Your task to perform on an android device: See recent photos Image 0: 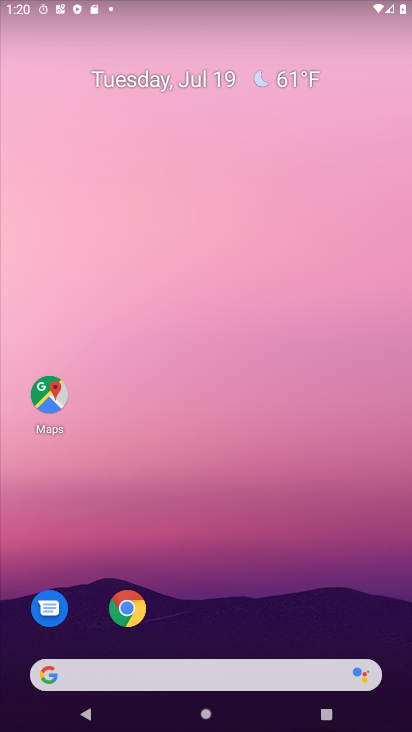
Step 0: drag from (285, 586) to (275, 138)
Your task to perform on an android device: See recent photos Image 1: 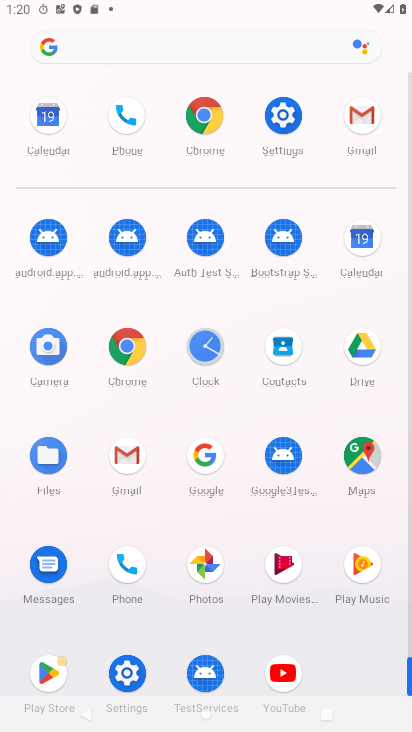
Step 1: click (201, 569)
Your task to perform on an android device: See recent photos Image 2: 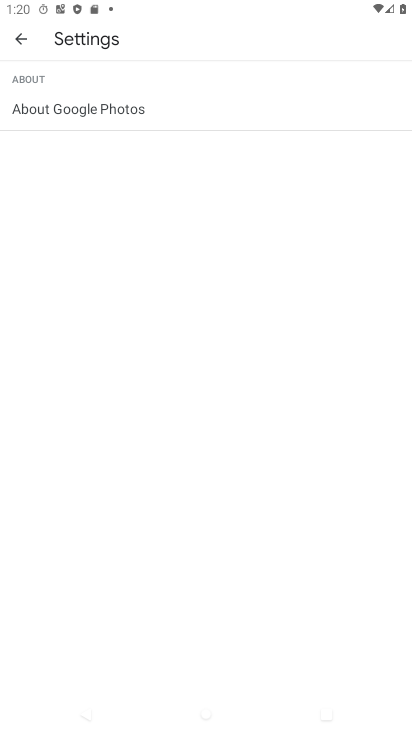
Step 2: click (23, 47)
Your task to perform on an android device: See recent photos Image 3: 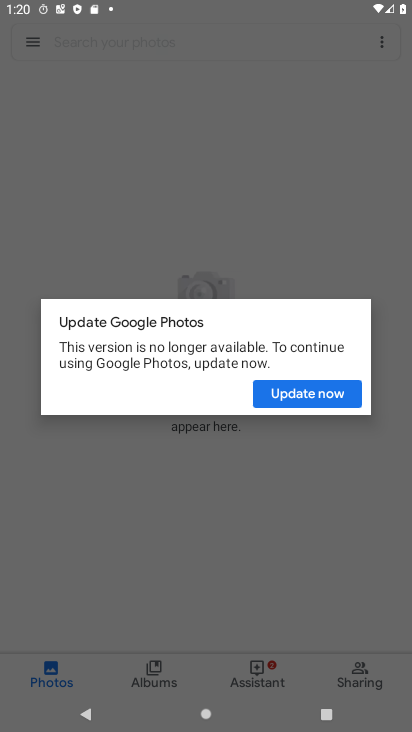
Step 3: click (324, 396)
Your task to perform on an android device: See recent photos Image 4: 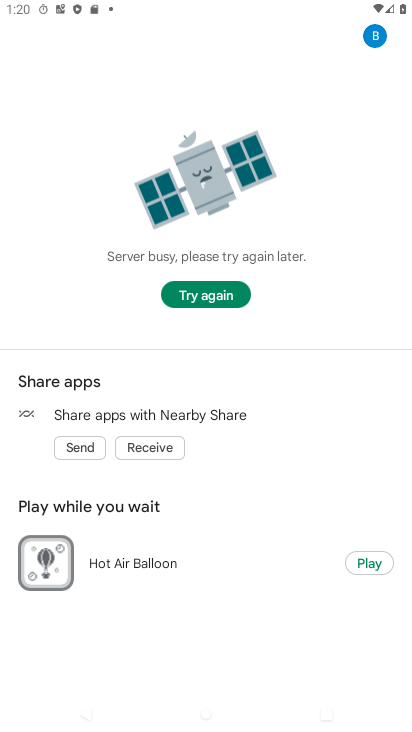
Step 4: click (226, 290)
Your task to perform on an android device: See recent photos Image 5: 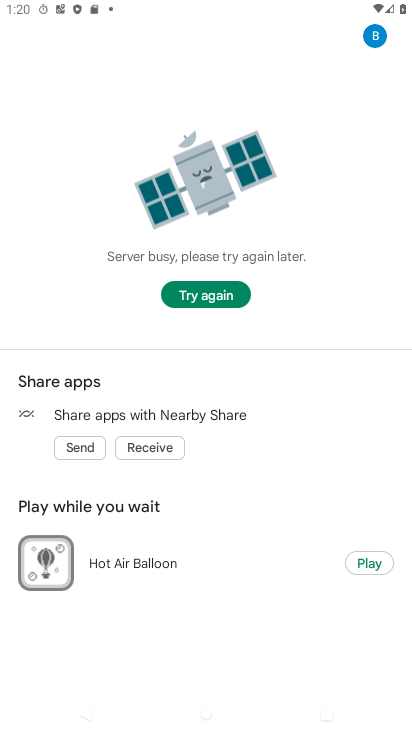
Step 5: task complete